Your task to perform on an android device: Open Chrome and go to settings Image 0: 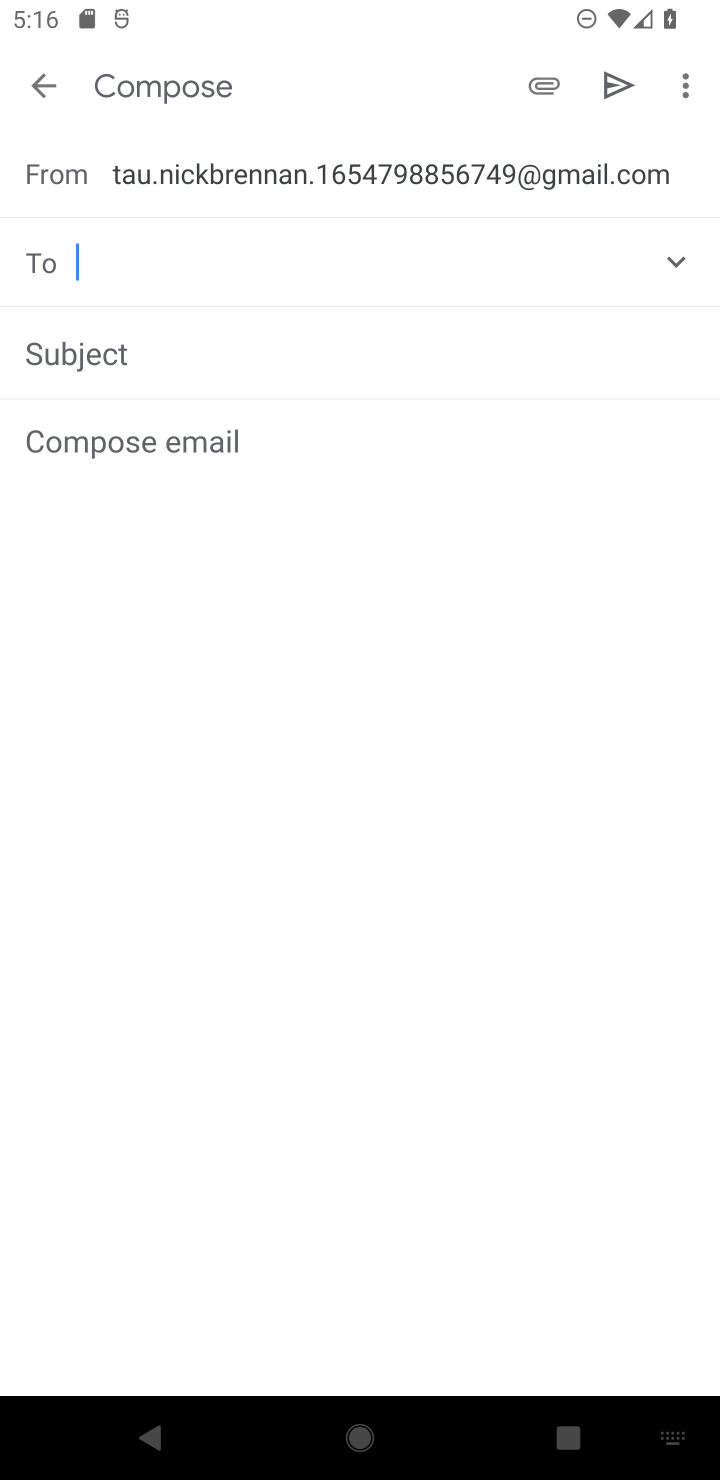
Step 0: click (441, 571)
Your task to perform on an android device: Open Chrome and go to settings Image 1: 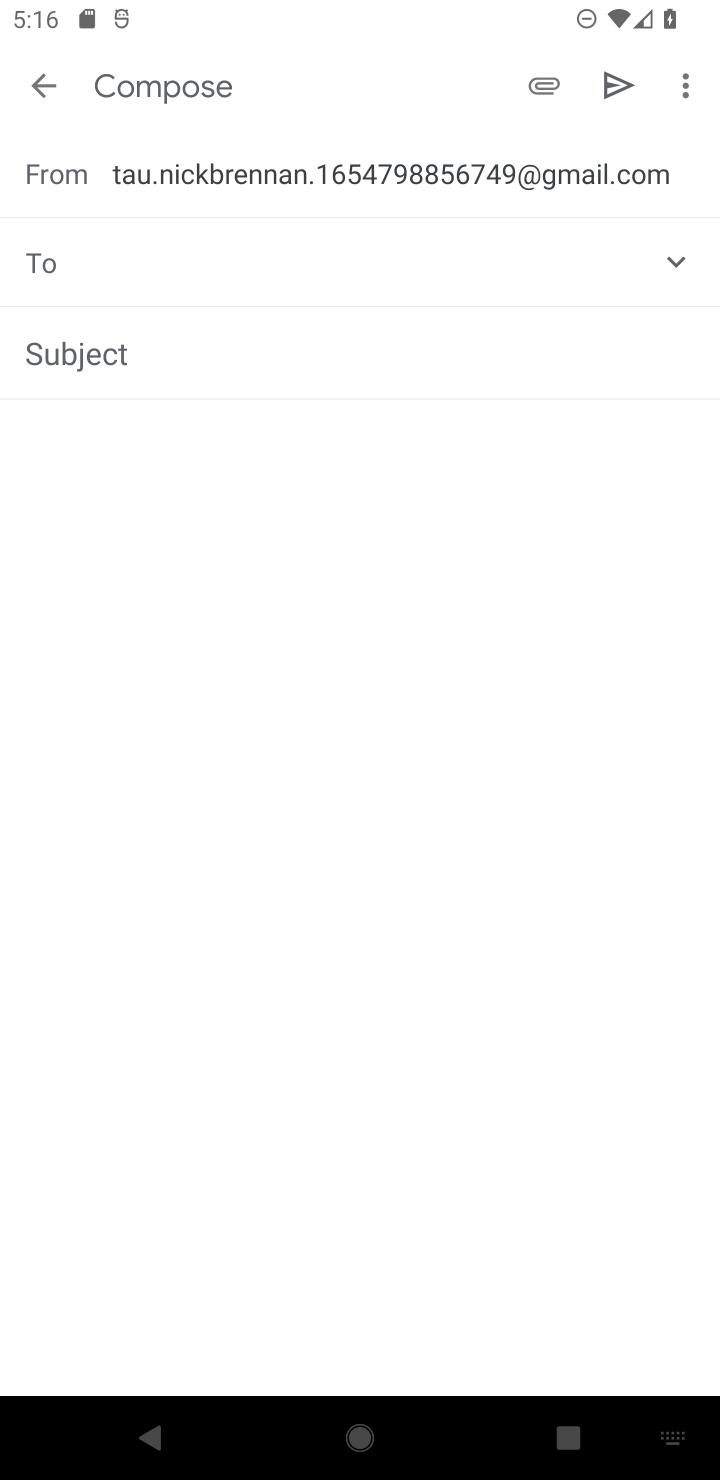
Step 1: press home button
Your task to perform on an android device: Open Chrome and go to settings Image 2: 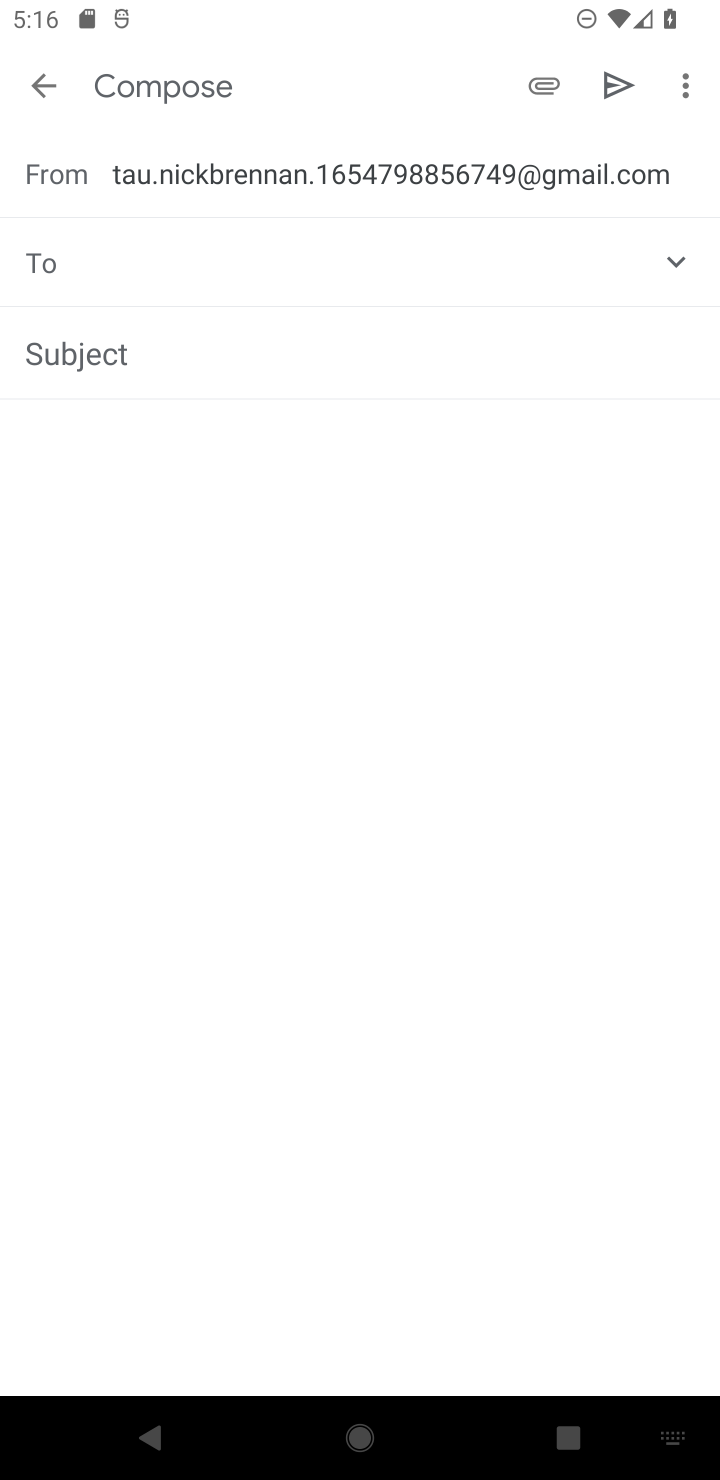
Step 2: press home button
Your task to perform on an android device: Open Chrome and go to settings Image 3: 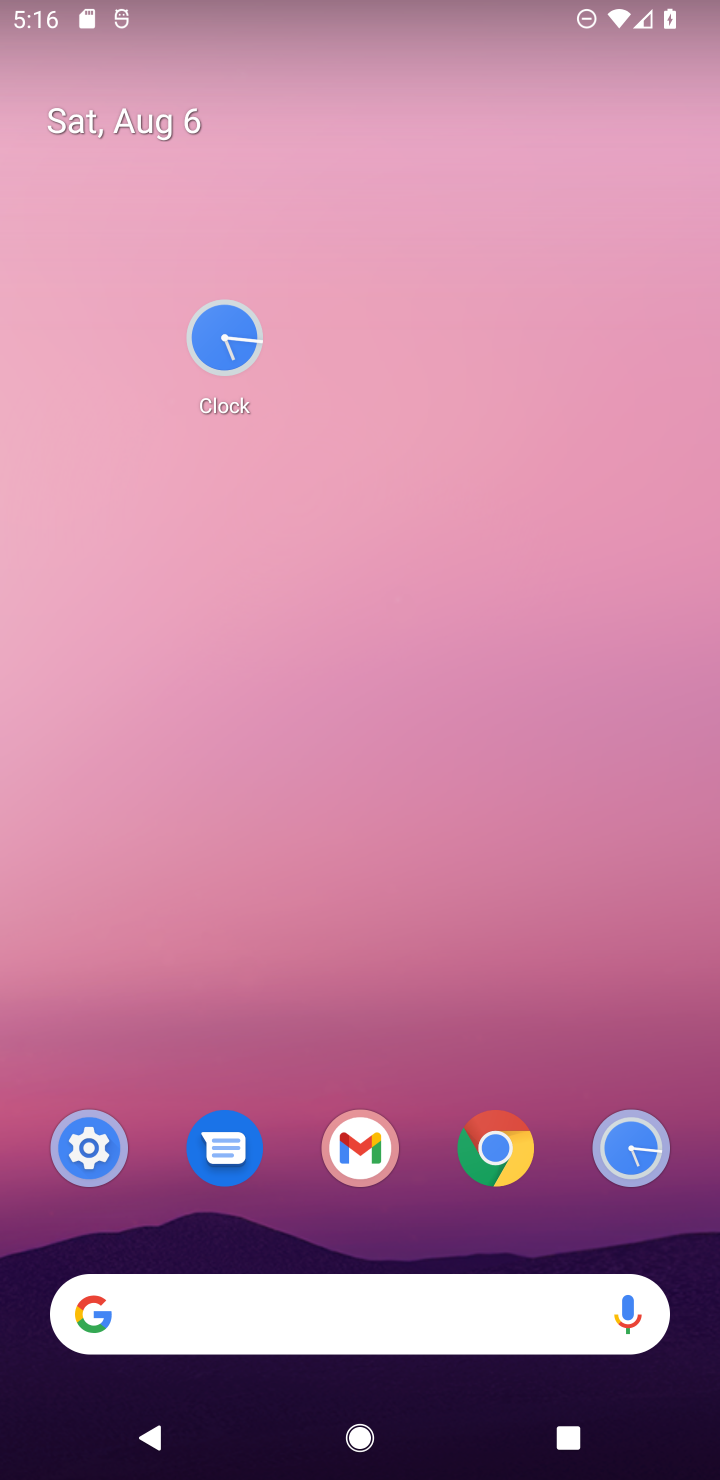
Step 3: drag from (439, 1129) to (504, 51)
Your task to perform on an android device: Open Chrome and go to settings Image 4: 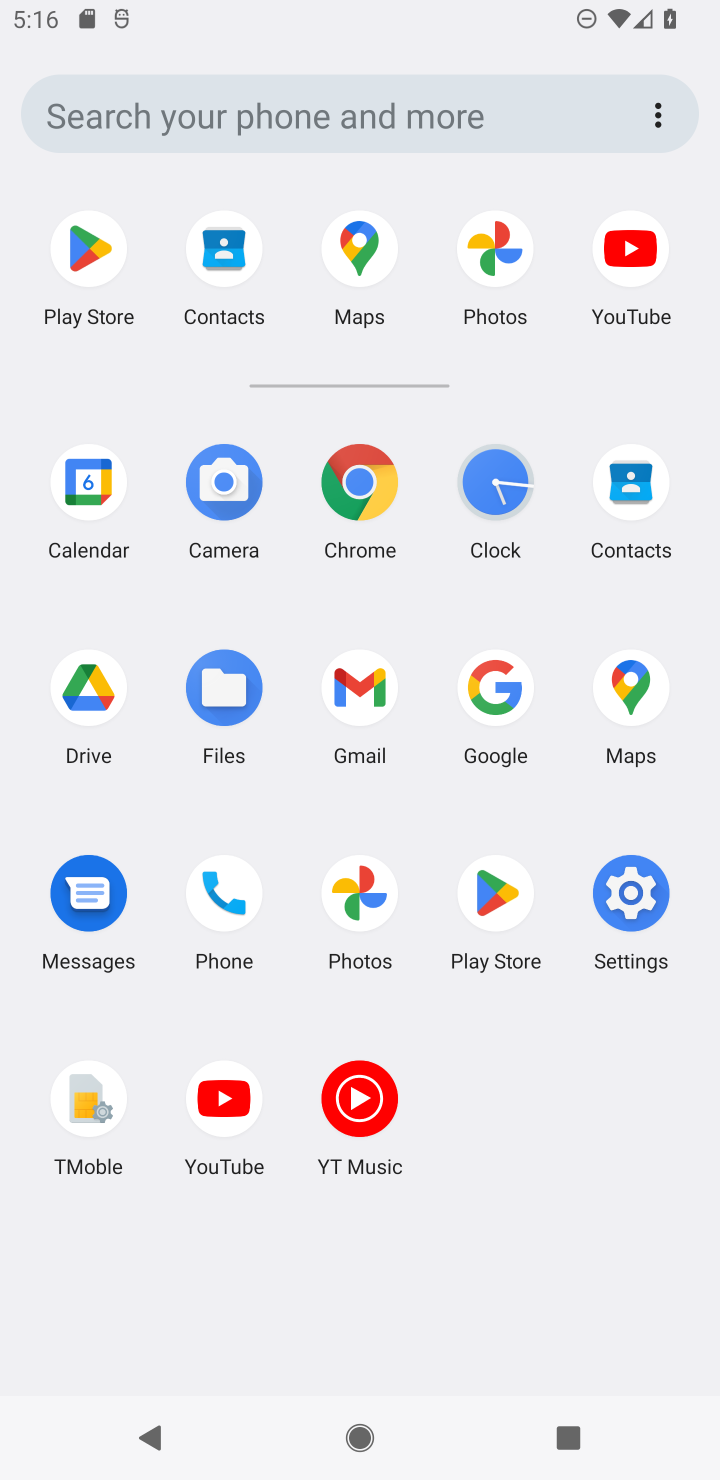
Step 4: click (360, 495)
Your task to perform on an android device: Open Chrome and go to settings Image 5: 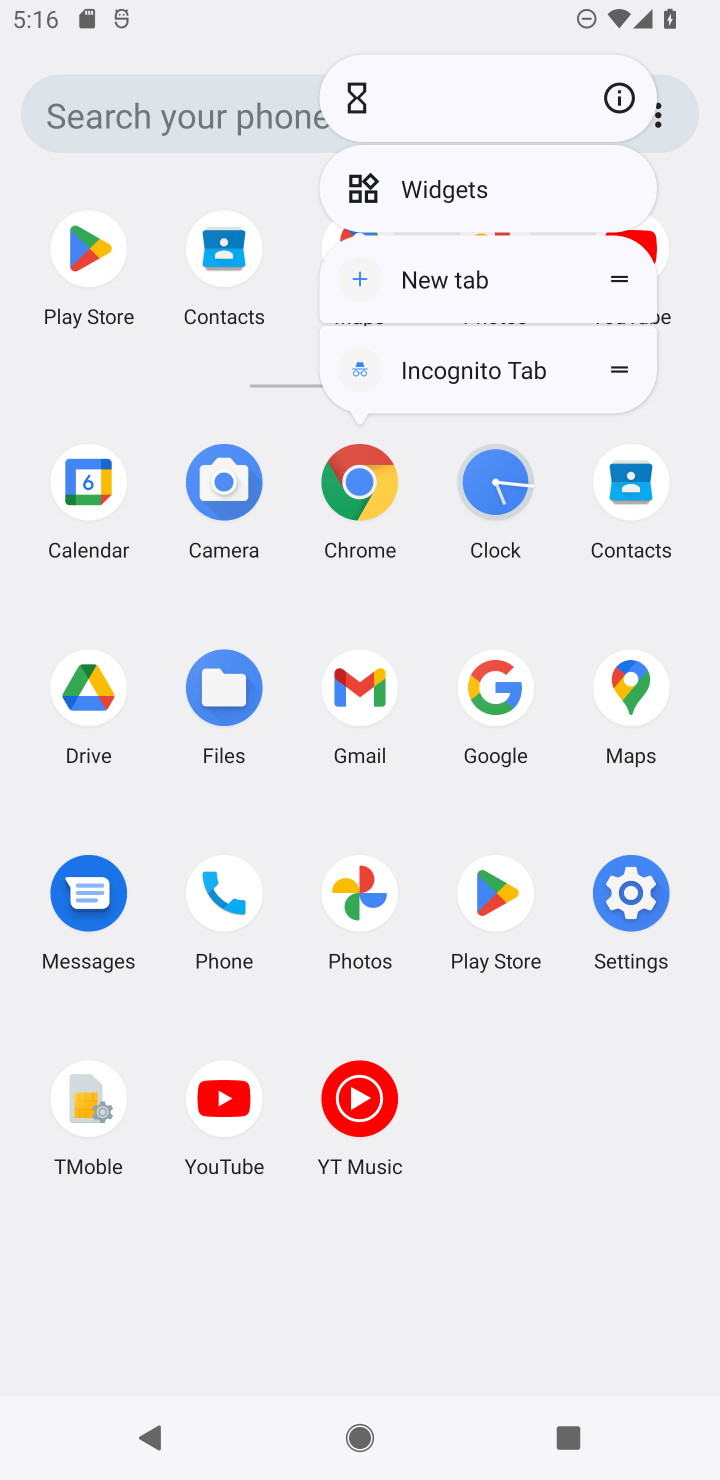
Step 5: click (618, 97)
Your task to perform on an android device: Open Chrome and go to settings Image 6: 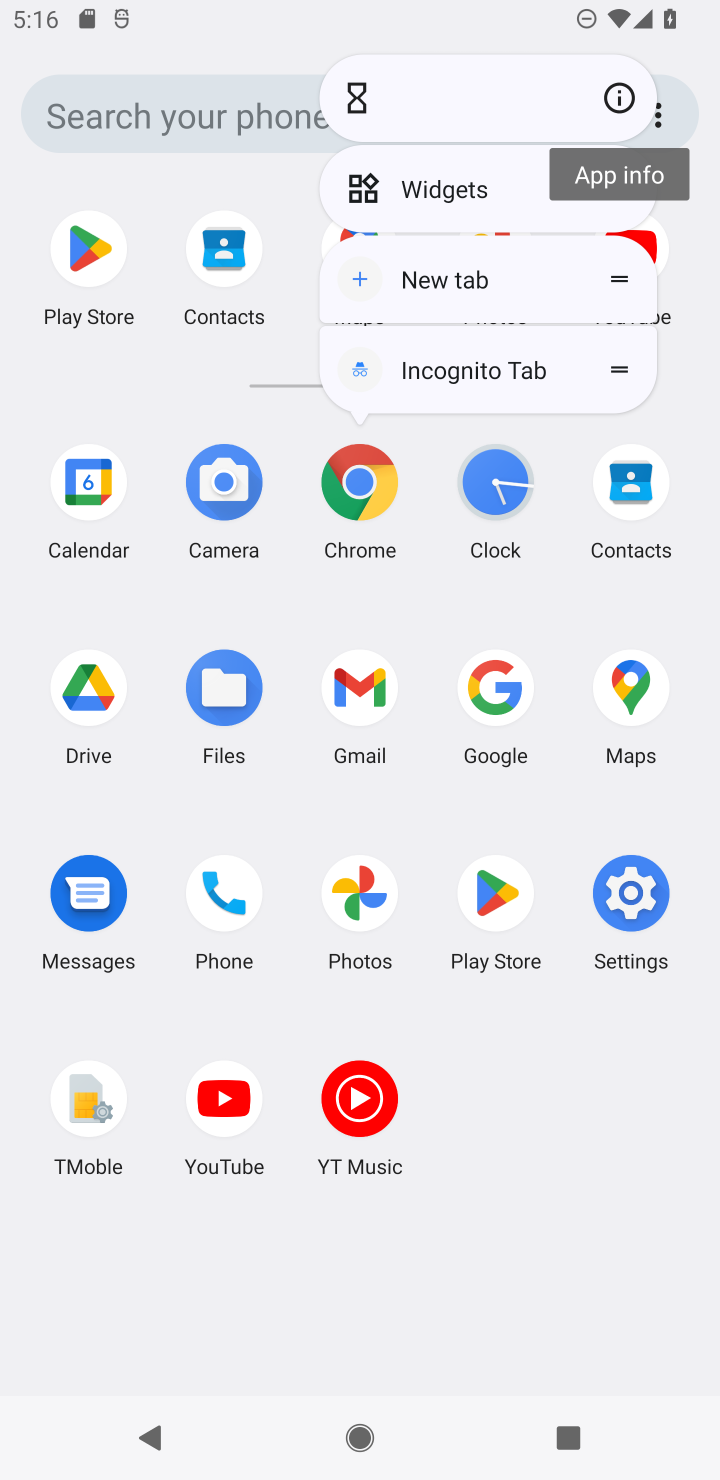
Step 6: click (585, 73)
Your task to perform on an android device: Open Chrome and go to settings Image 7: 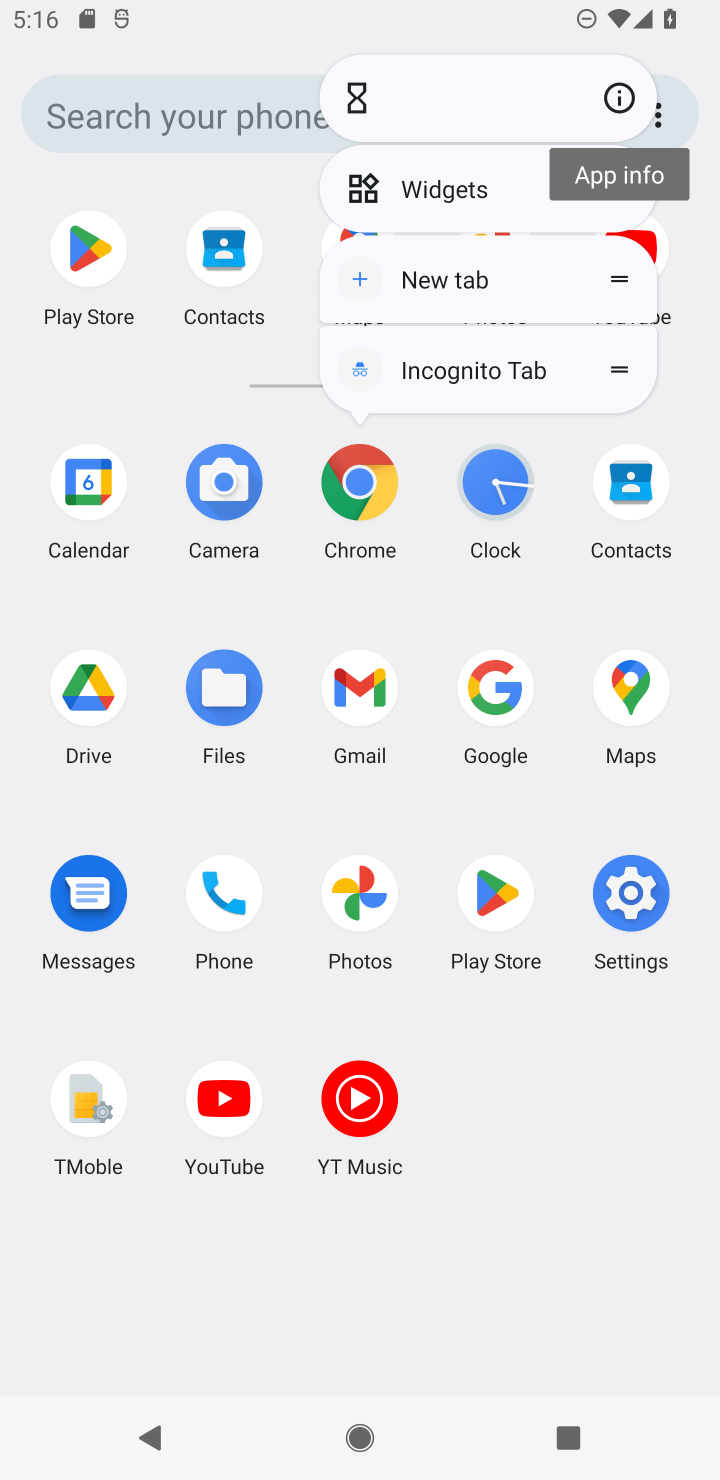
Step 7: click (598, 88)
Your task to perform on an android device: Open Chrome and go to settings Image 8: 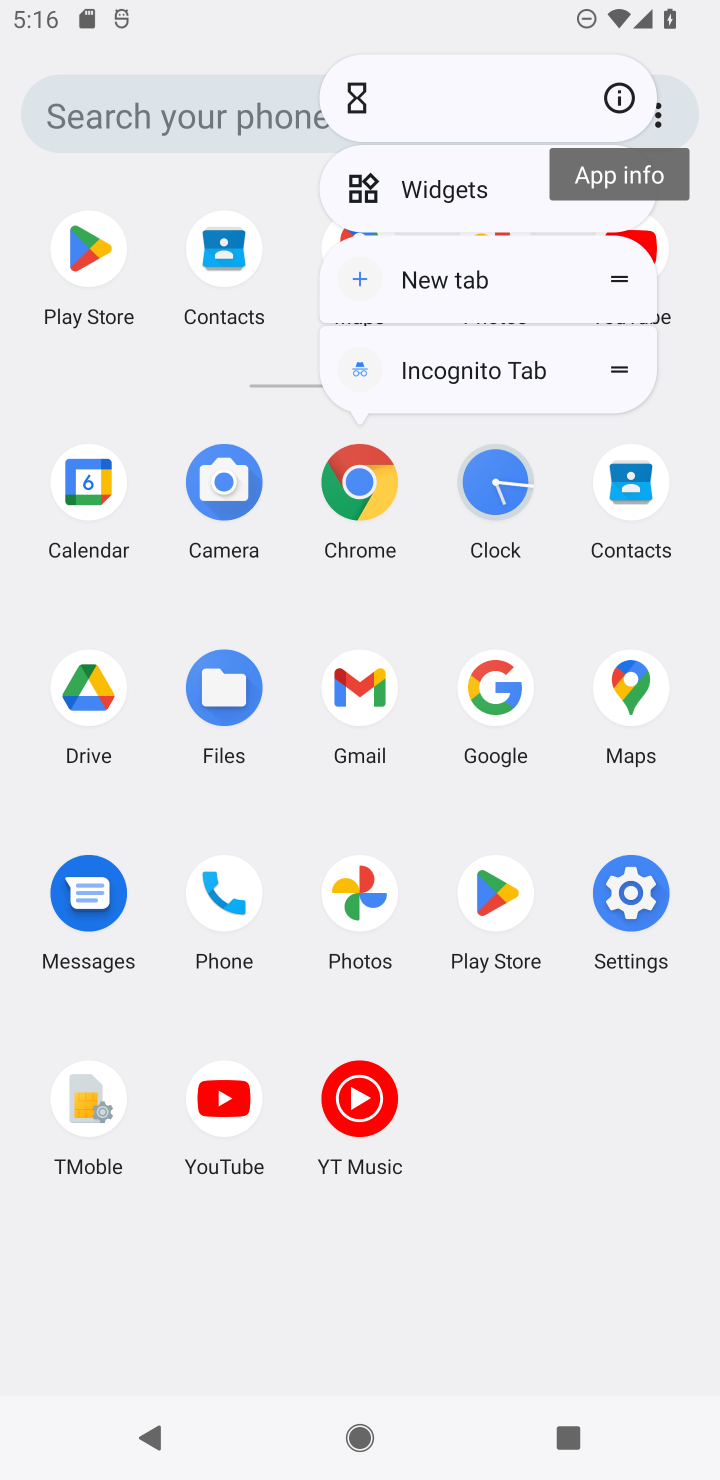
Step 8: click (598, 88)
Your task to perform on an android device: Open Chrome and go to settings Image 9: 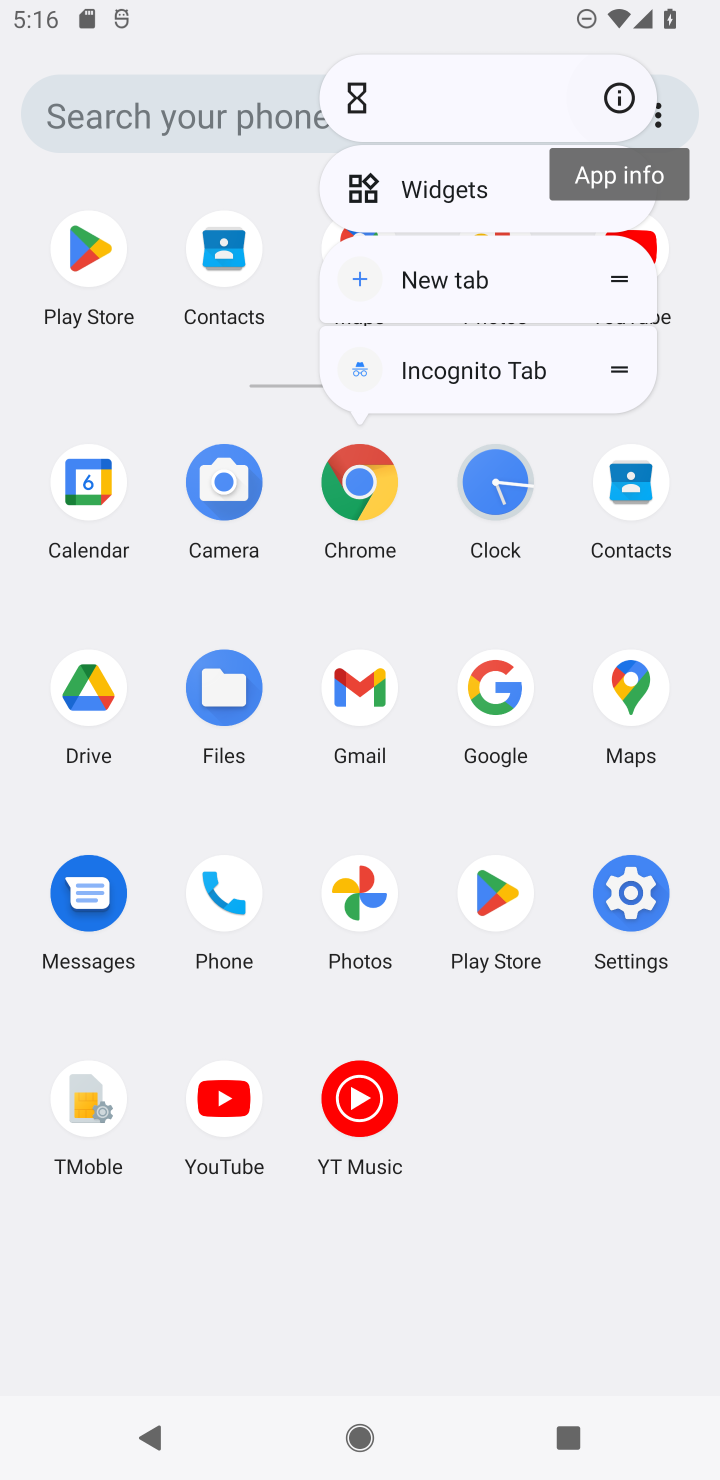
Step 9: click (598, 88)
Your task to perform on an android device: Open Chrome and go to settings Image 10: 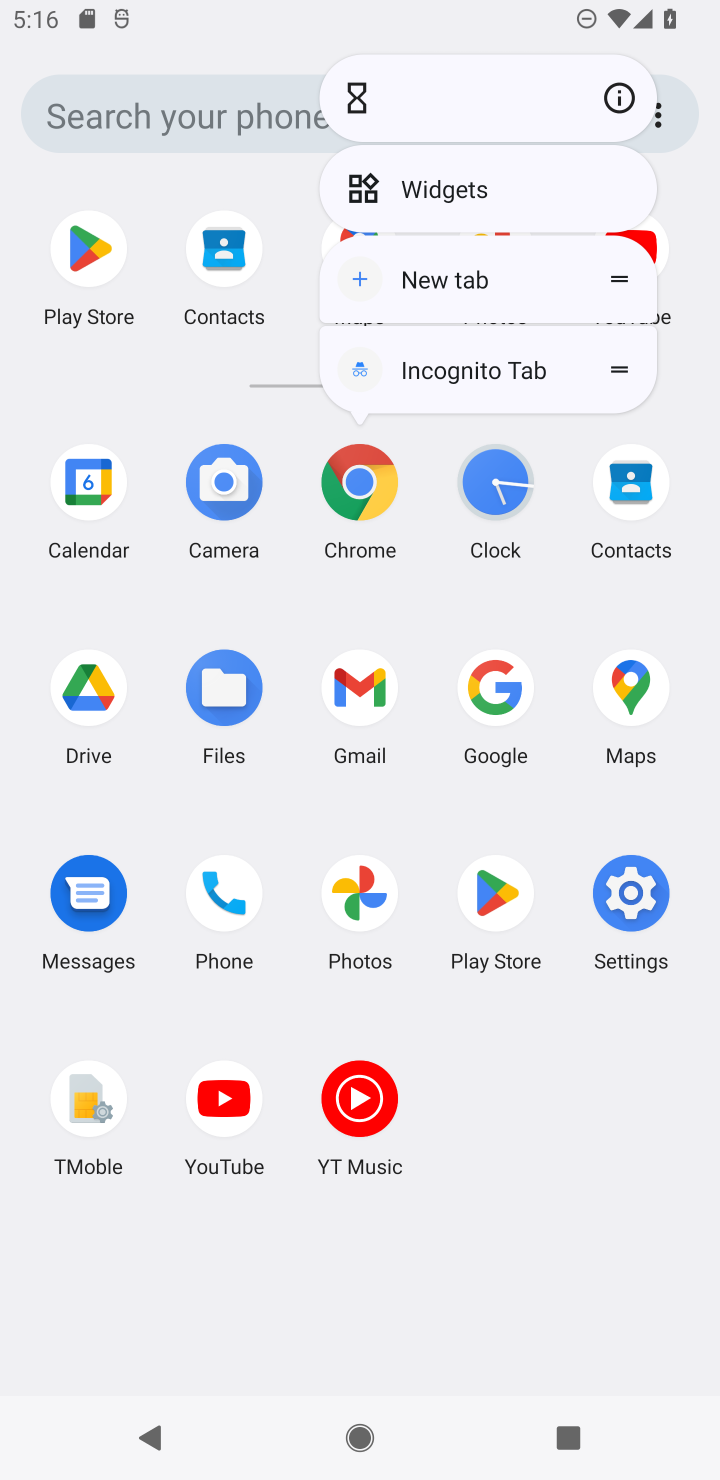
Step 10: click (620, 93)
Your task to perform on an android device: Open Chrome and go to settings Image 11: 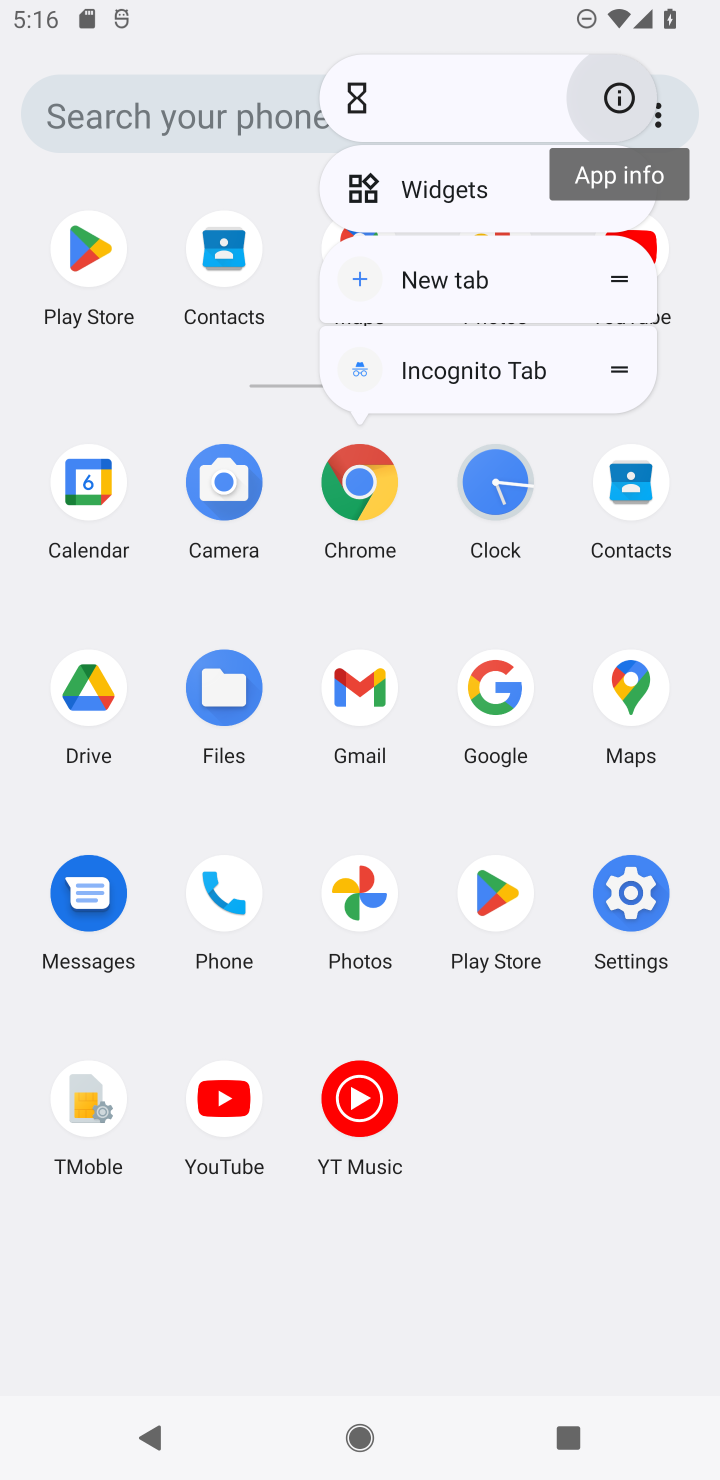
Step 11: click (608, 110)
Your task to perform on an android device: Open Chrome and go to settings Image 12: 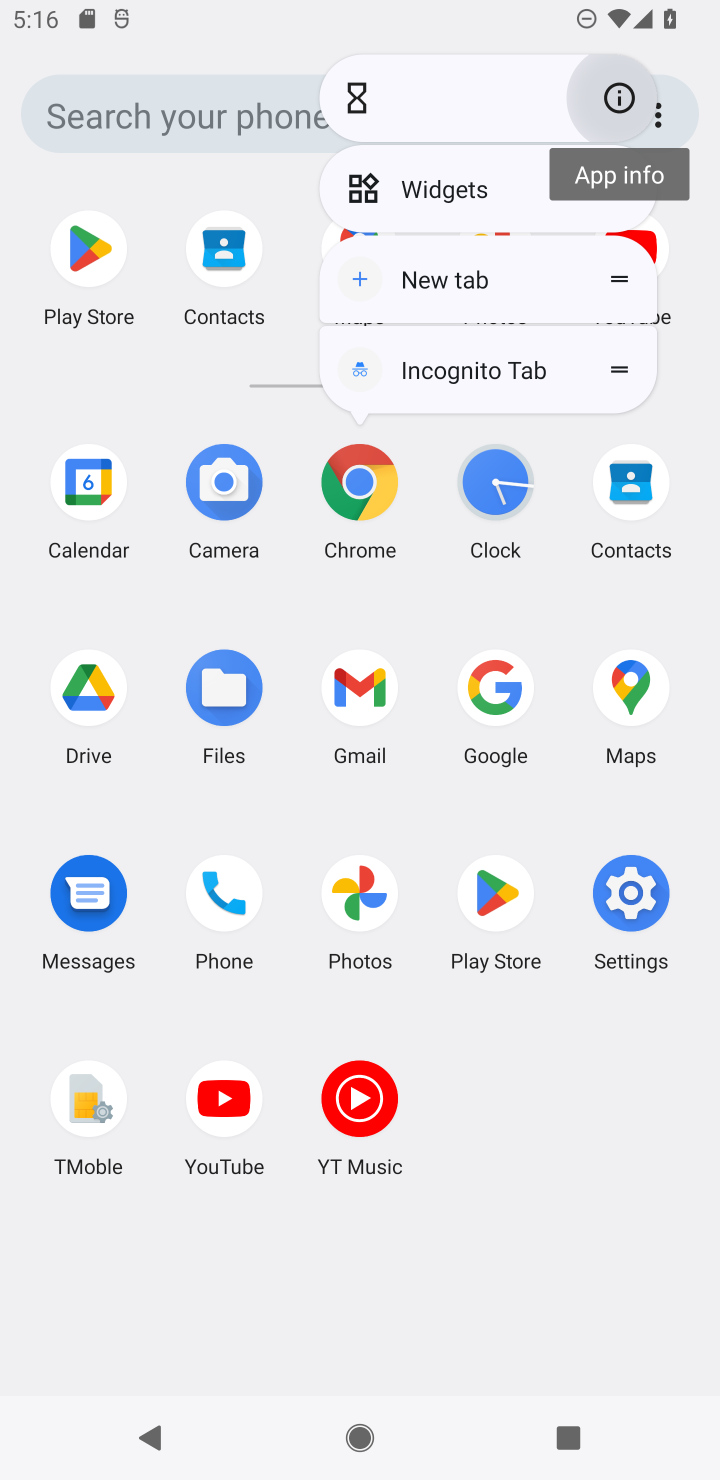
Step 12: click (606, 106)
Your task to perform on an android device: Open Chrome and go to settings Image 13: 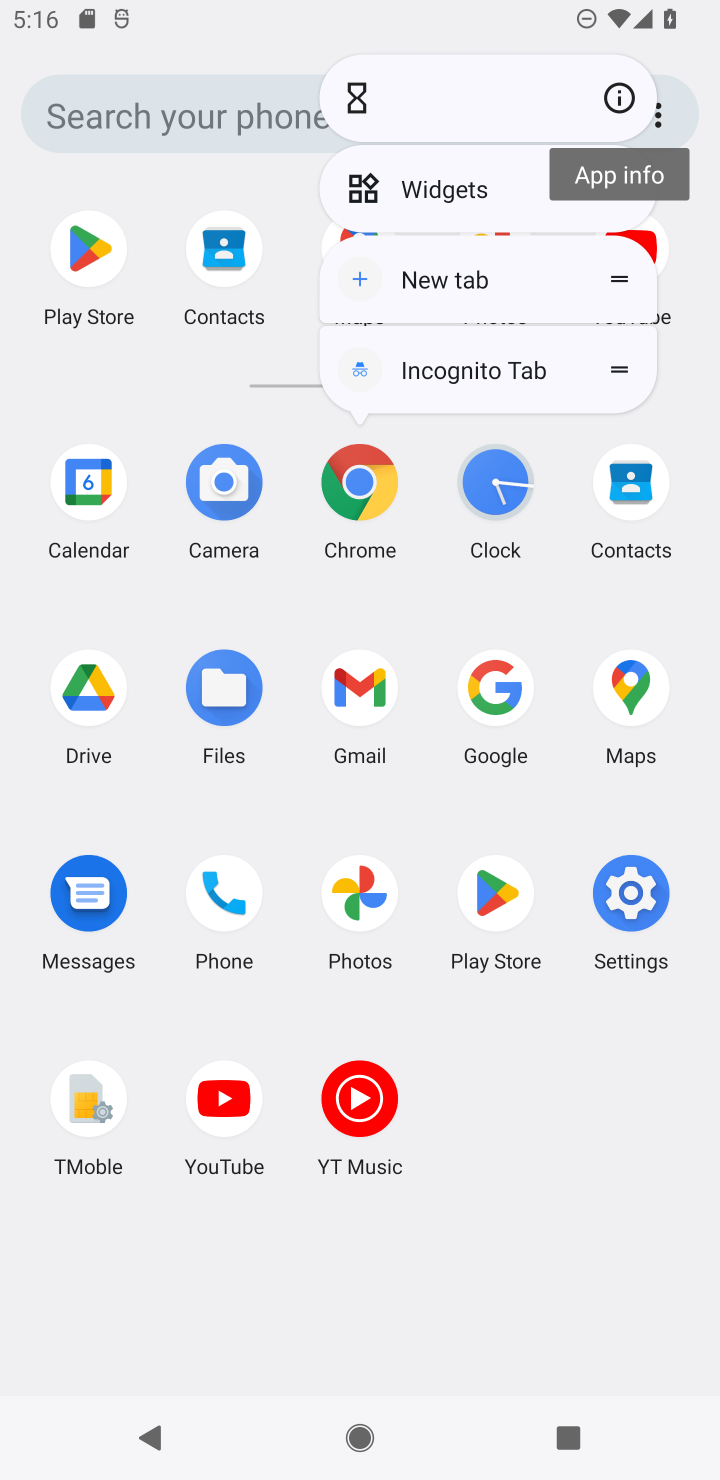
Step 13: click (332, 486)
Your task to perform on an android device: Open Chrome and go to settings Image 14: 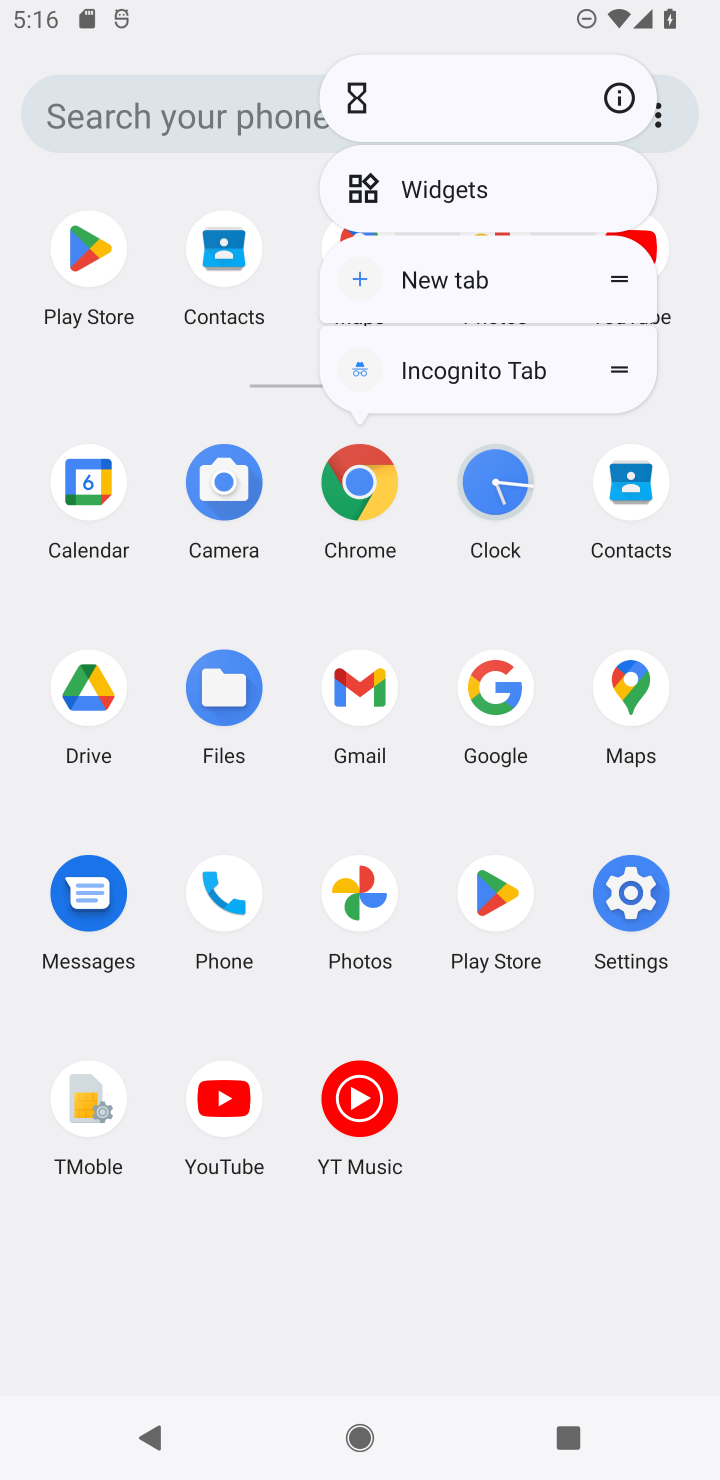
Step 14: click (351, 467)
Your task to perform on an android device: Open Chrome and go to settings Image 15: 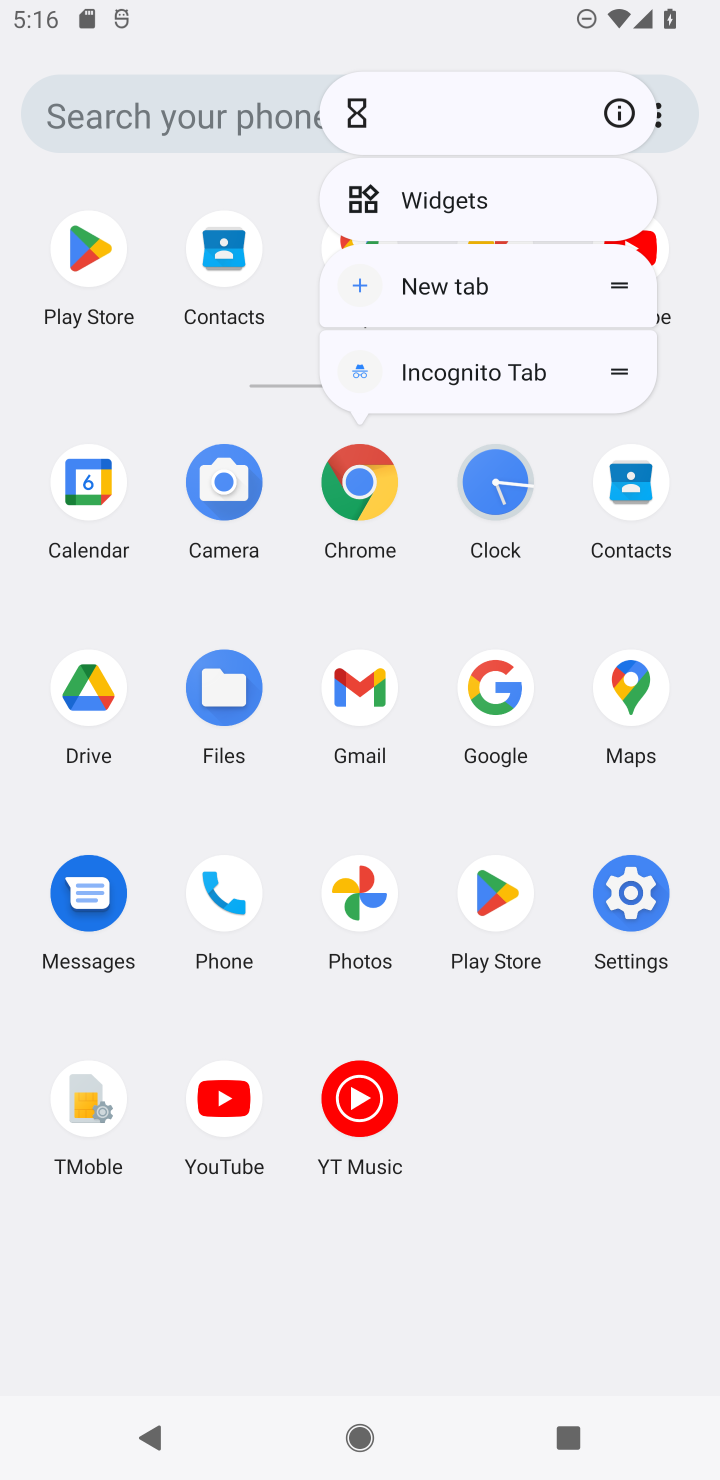
Step 15: click (351, 467)
Your task to perform on an android device: Open Chrome and go to settings Image 16: 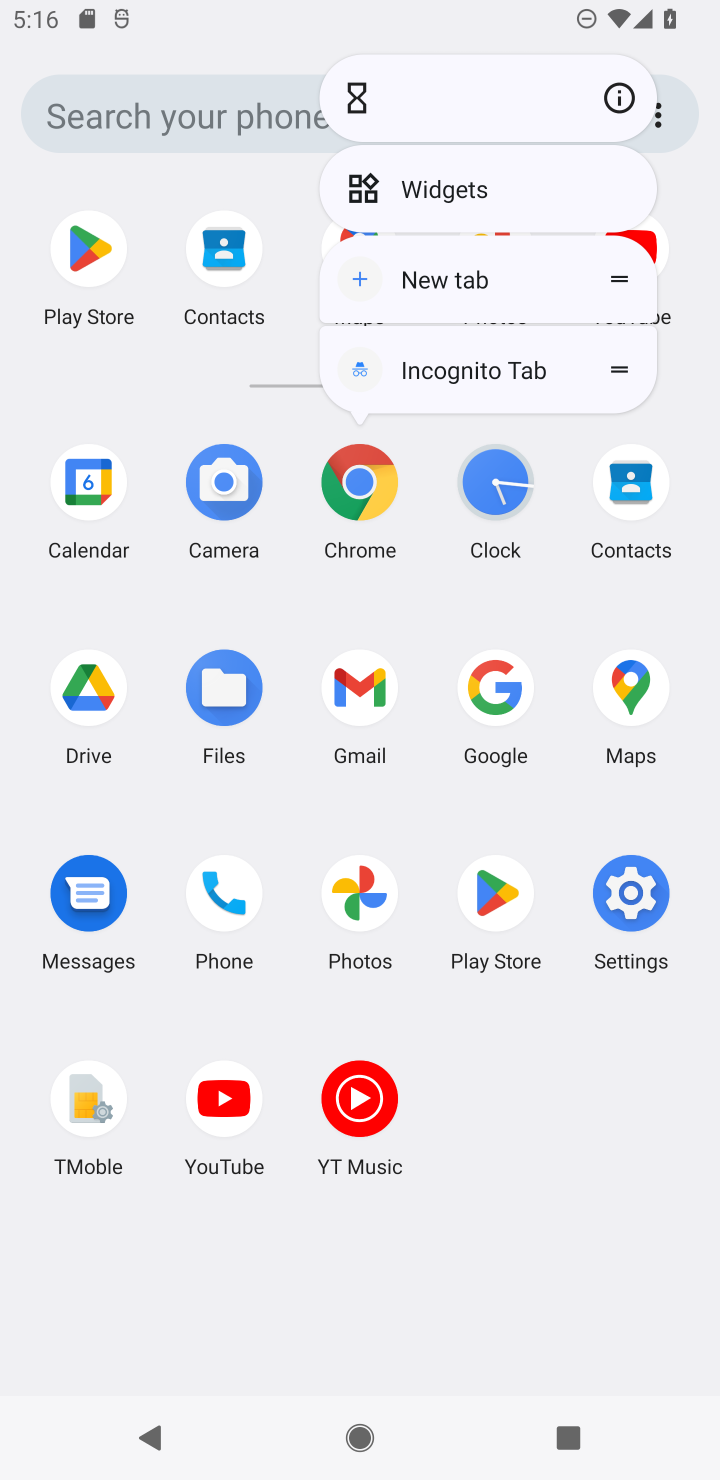
Step 16: click (351, 467)
Your task to perform on an android device: Open Chrome and go to settings Image 17: 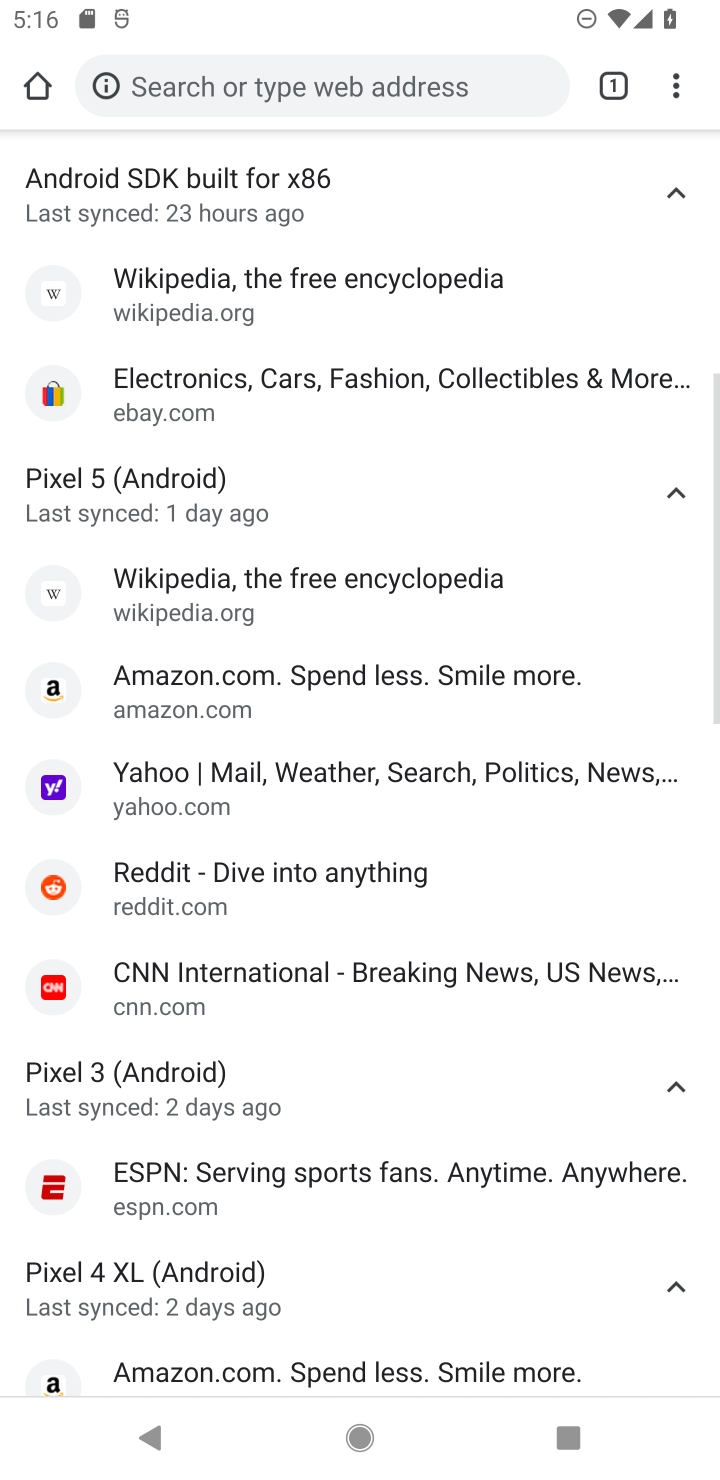
Step 17: drag from (674, 95) to (484, 847)
Your task to perform on an android device: Open Chrome and go to settings Image 18: 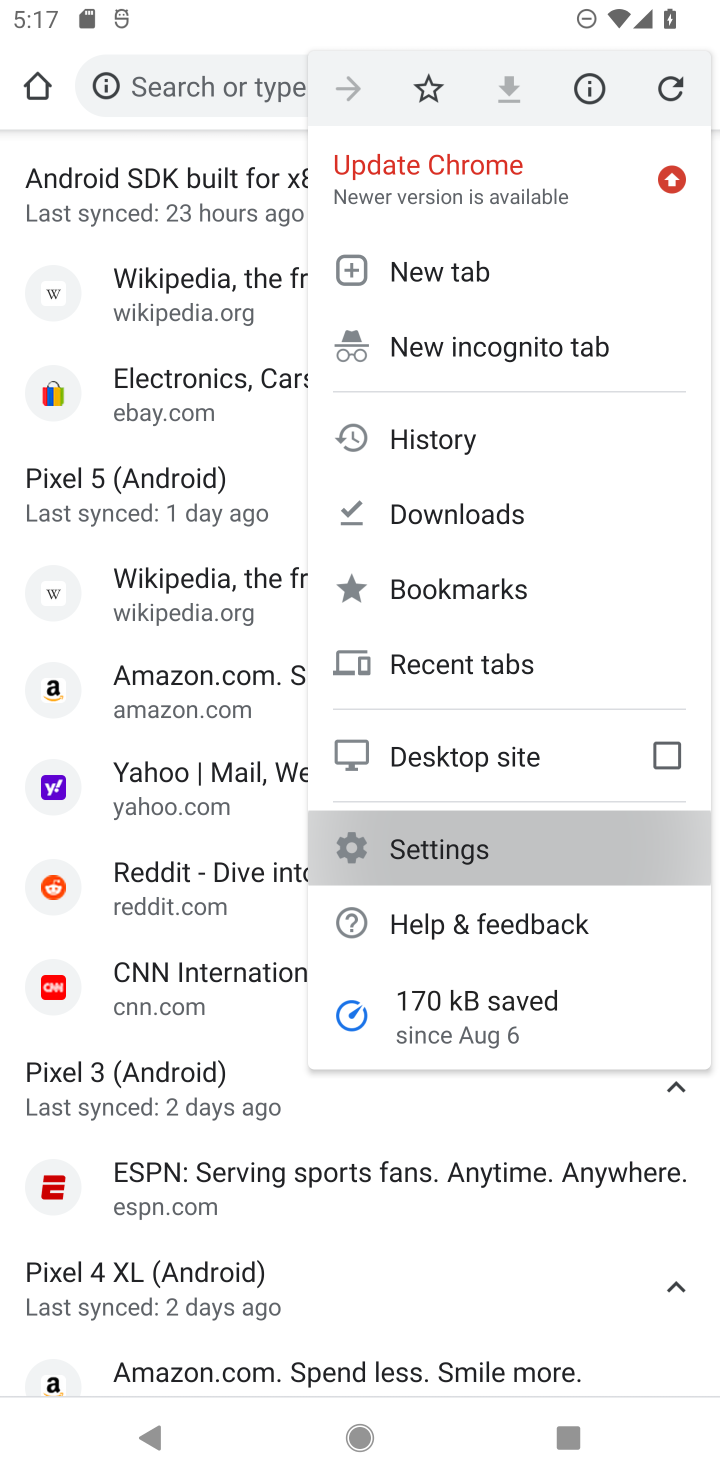
Step 18: click (484, 847)
Your task to perform on an android device: Open Chrome and go to settings Image 19: 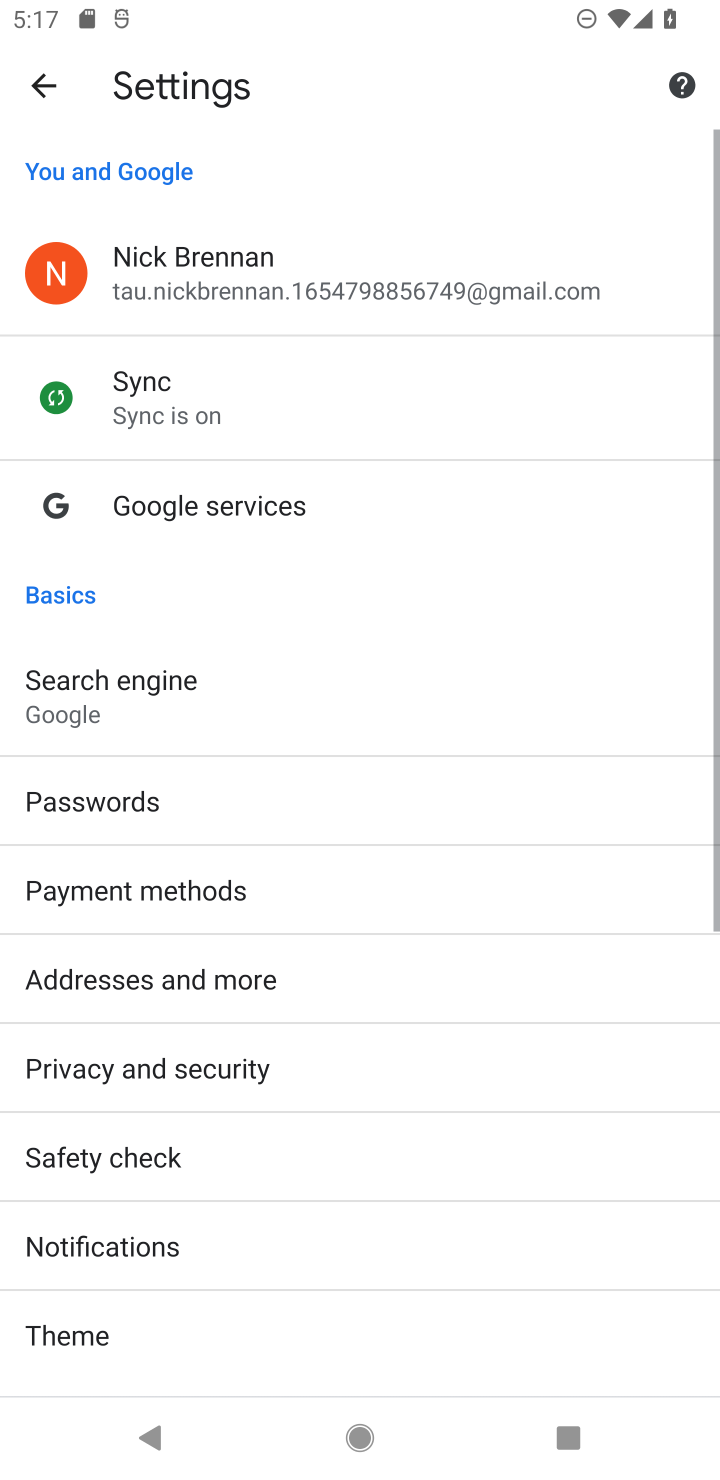
Step 19: task complete